Your task to perform on an android device: Open privacy settings Image 0: 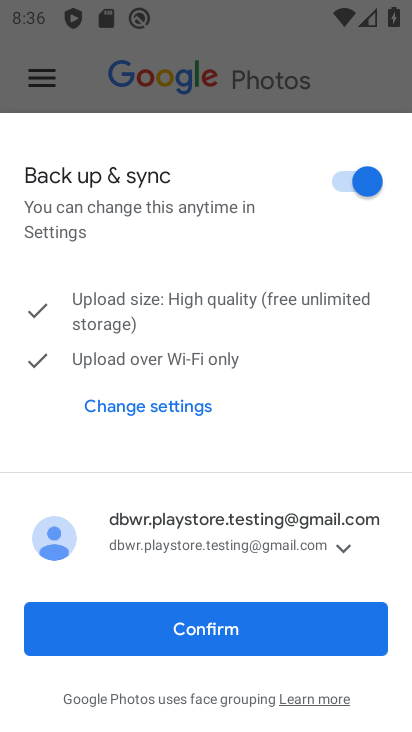
Step 0: press home button
Your task to perform on an android device: Open privacy settings Image 1: 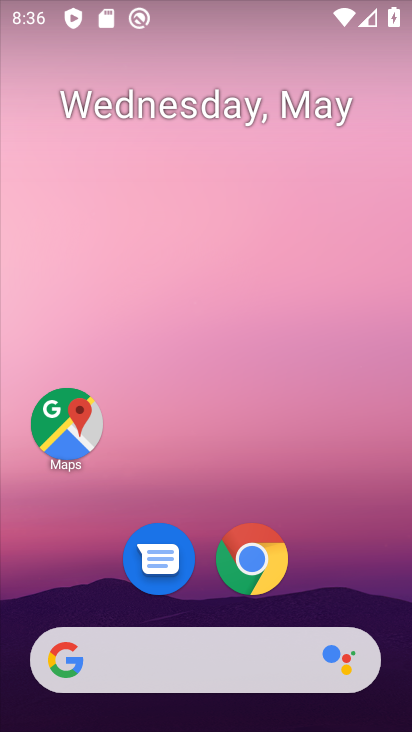
Step 1: drag from (75, 599) to (261, 95)
Your task to perform on an android device: Open privacy settings Image 2: 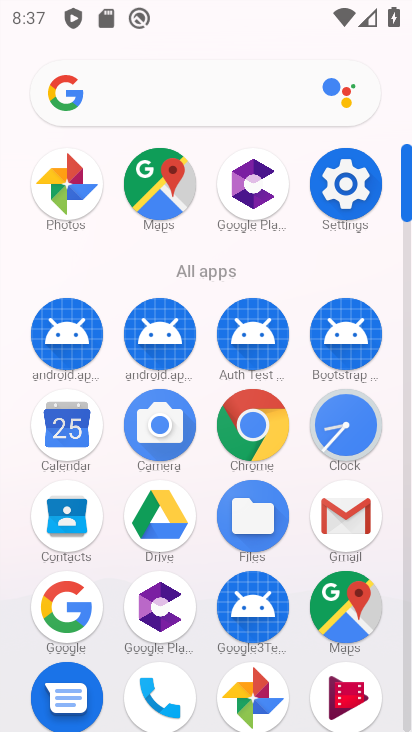
Step 2: click (259, 434)
Your task to perform on an android device: Open privacy settings Image 3: 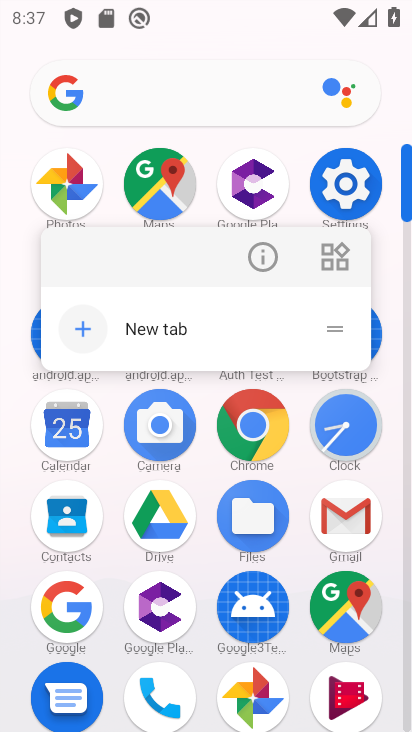
Step 3: click (259, 432)
Your task to perform on an android device: Open privacy settings Image 4: 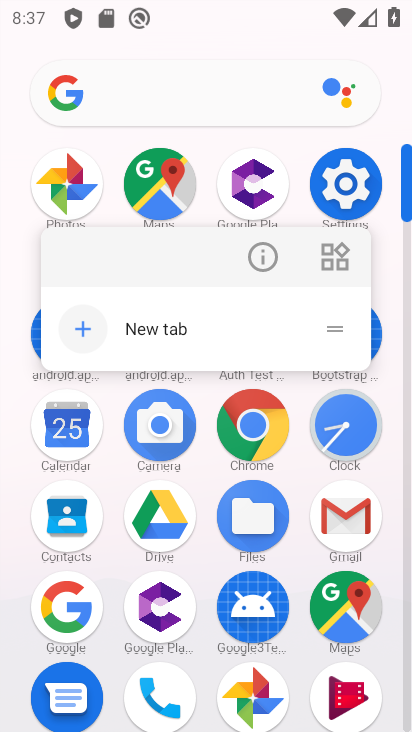
Step 4: click (245, 442)
Your task to perform on an android device: Open privacy settings Image 5: 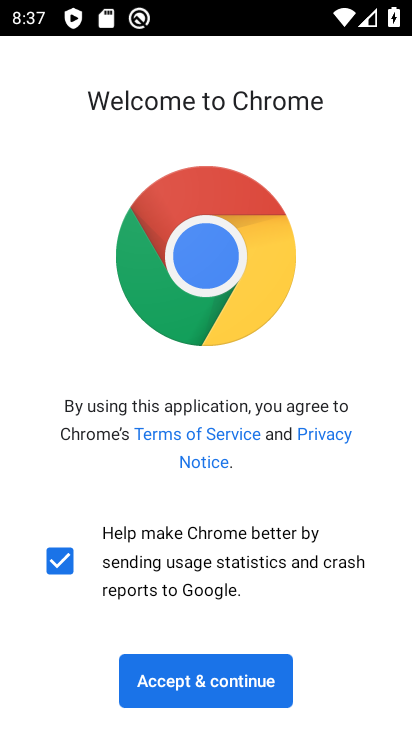
Step 5: click (209, 679)
Your task to perform on an android device: Open privacy settings Image 6: 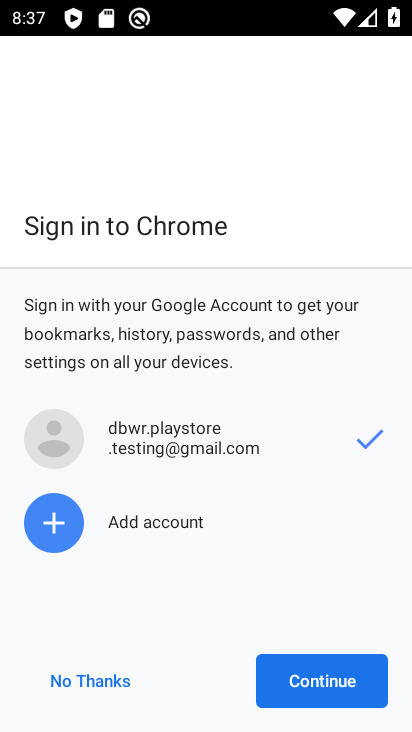
Step 6: click (277, 677)
Your task to perform on an android device: Open privacy settings Image 7: 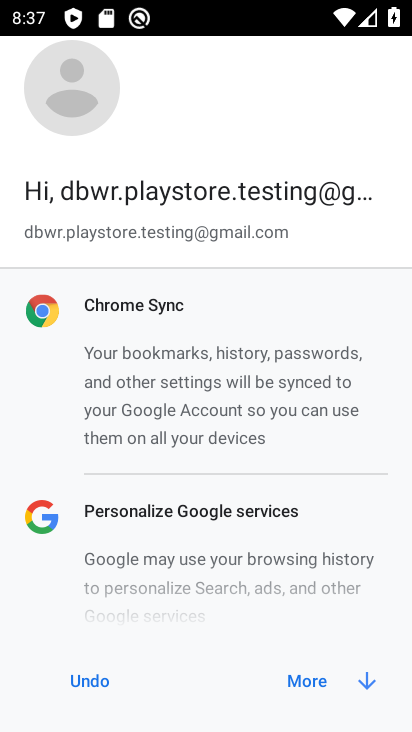
Step 7: click (289, 681)
Your task to perform on an android device: Open privacy settings Image 8: 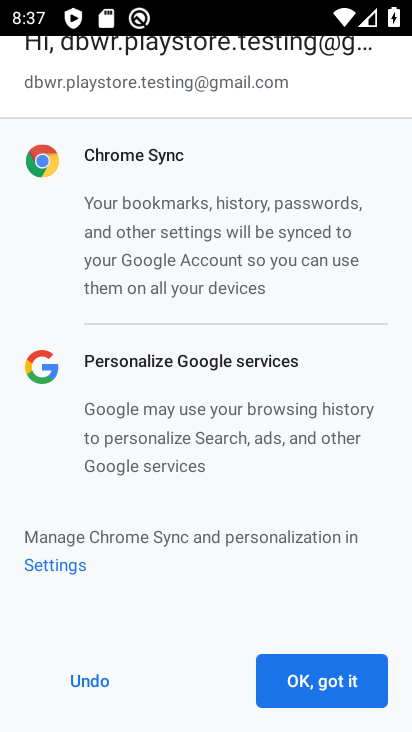
Step 8: click (289, 681)
Your task to perform on an android device: Open privacy settings Image 9: 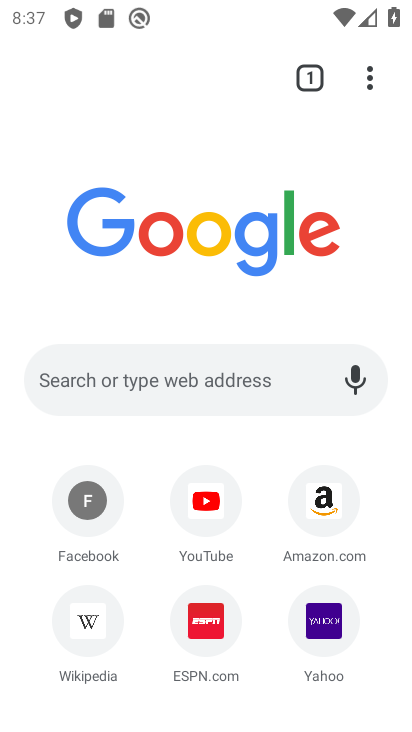
Step 9: drag from (389, 78) to (138, 617)
Your task to perform on an android device: Open privacy settings Image 10: 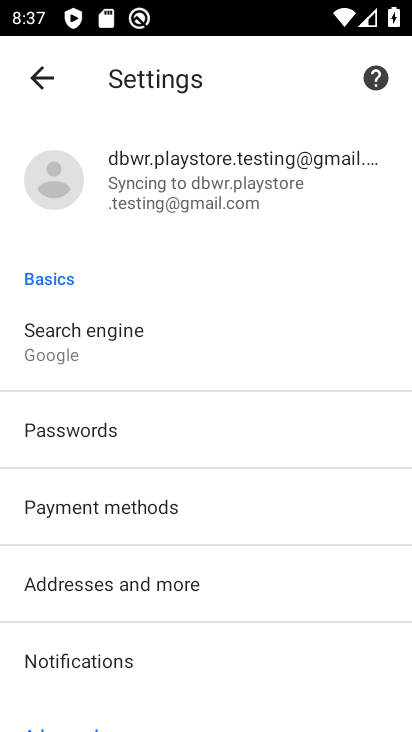
Step 10: drag from (180, 651) to (296, 295)
Your task to perform on an android device: Open privacy settings Image 11: 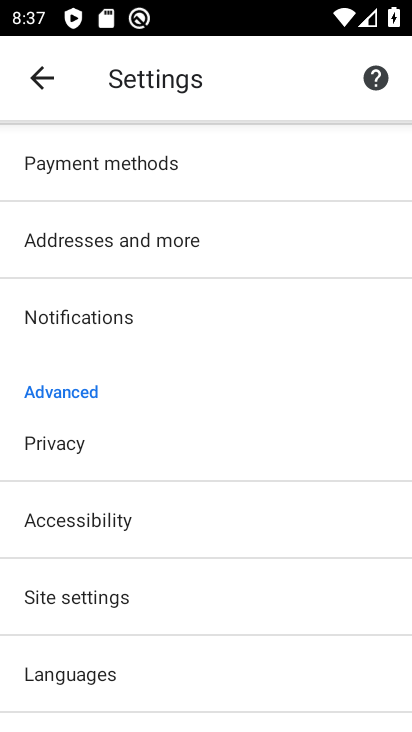
Step 11: click (137, 459)
Your task to perform on an android device: Open privacy settings Image 12: 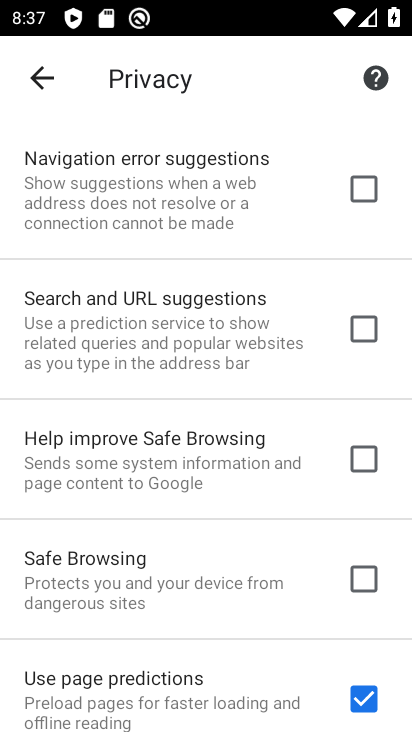
Step 12: task complete